Your task to perform on an android device: change alarm snooze length Image 0: 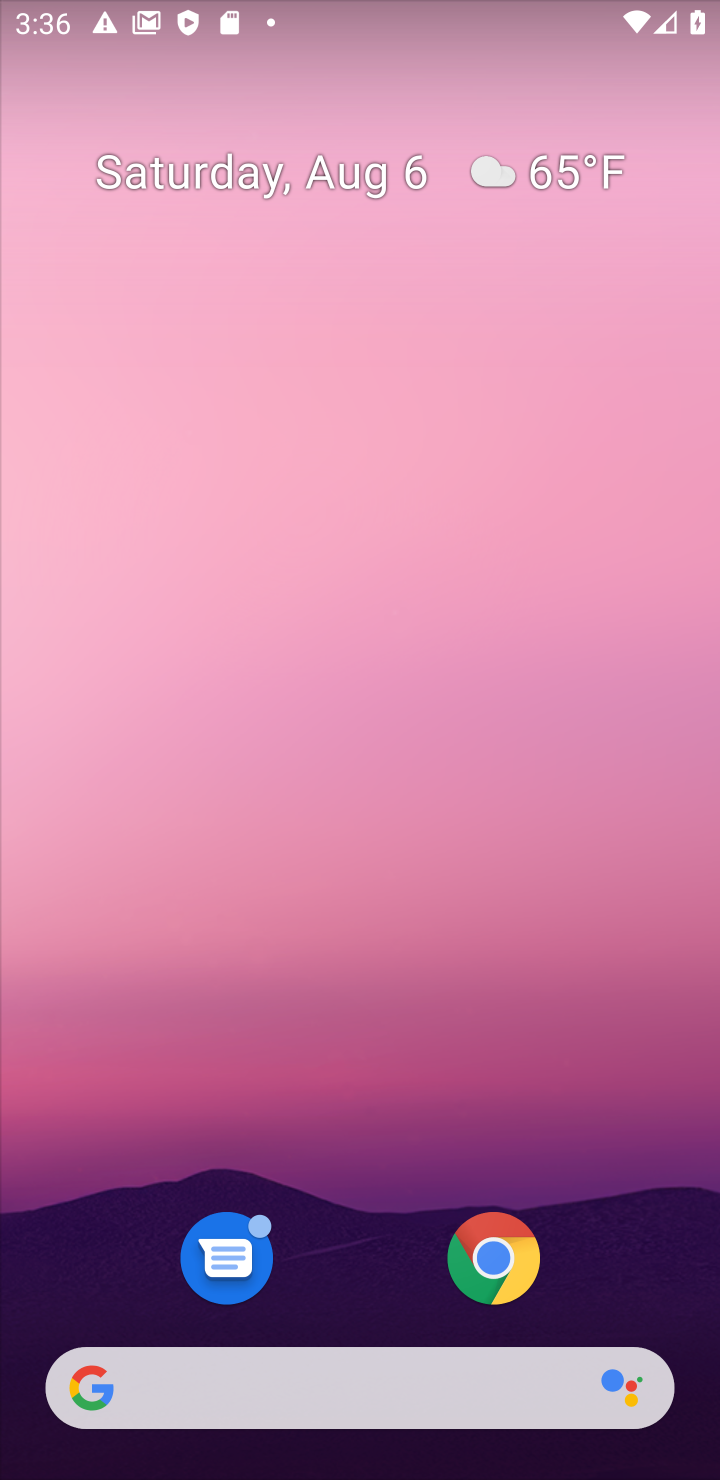
Step 0: drag from (320, 1038) to (366, 456)
Your task to perform on an android device: change alarm snooze length Image 1: 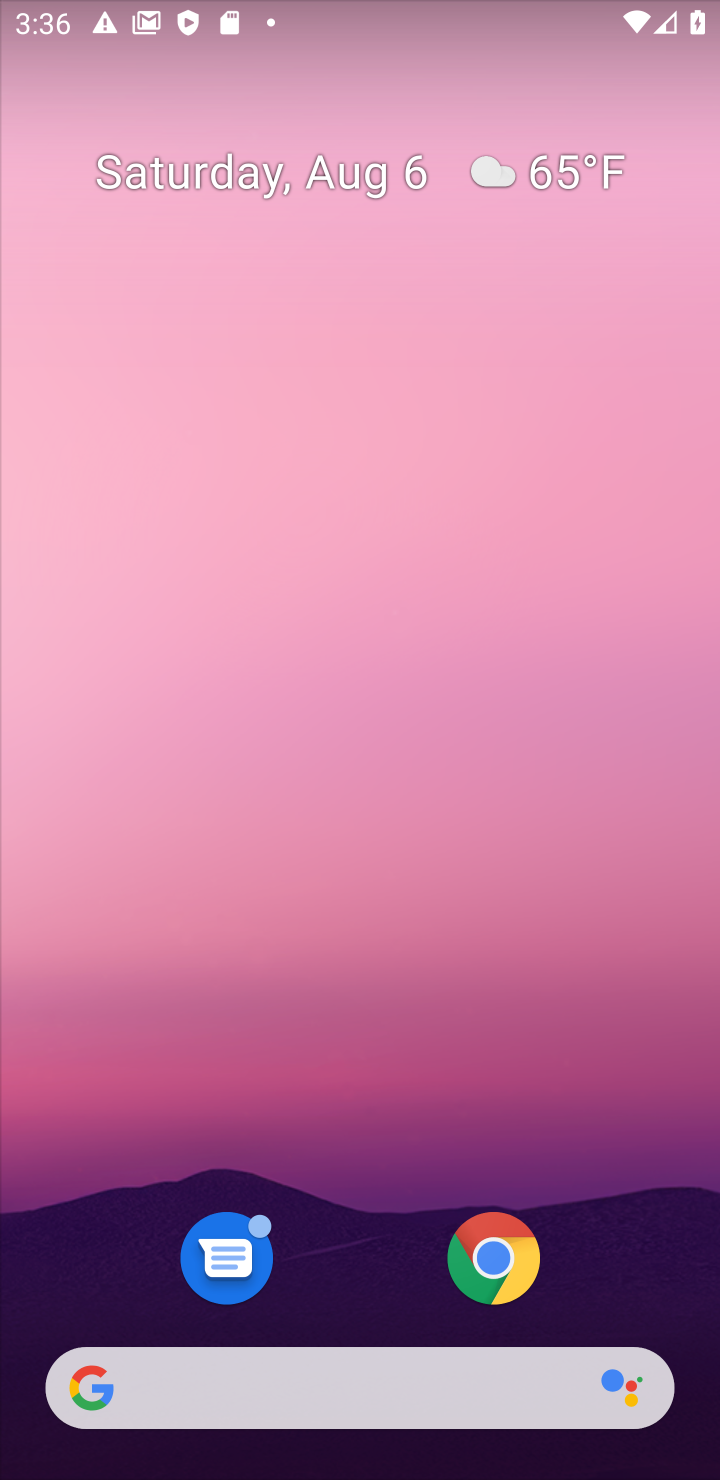
Step 1: drag from (396, 561) to (453, 195)
Your task to perform on an android device: change alarm snooze length Image 2: 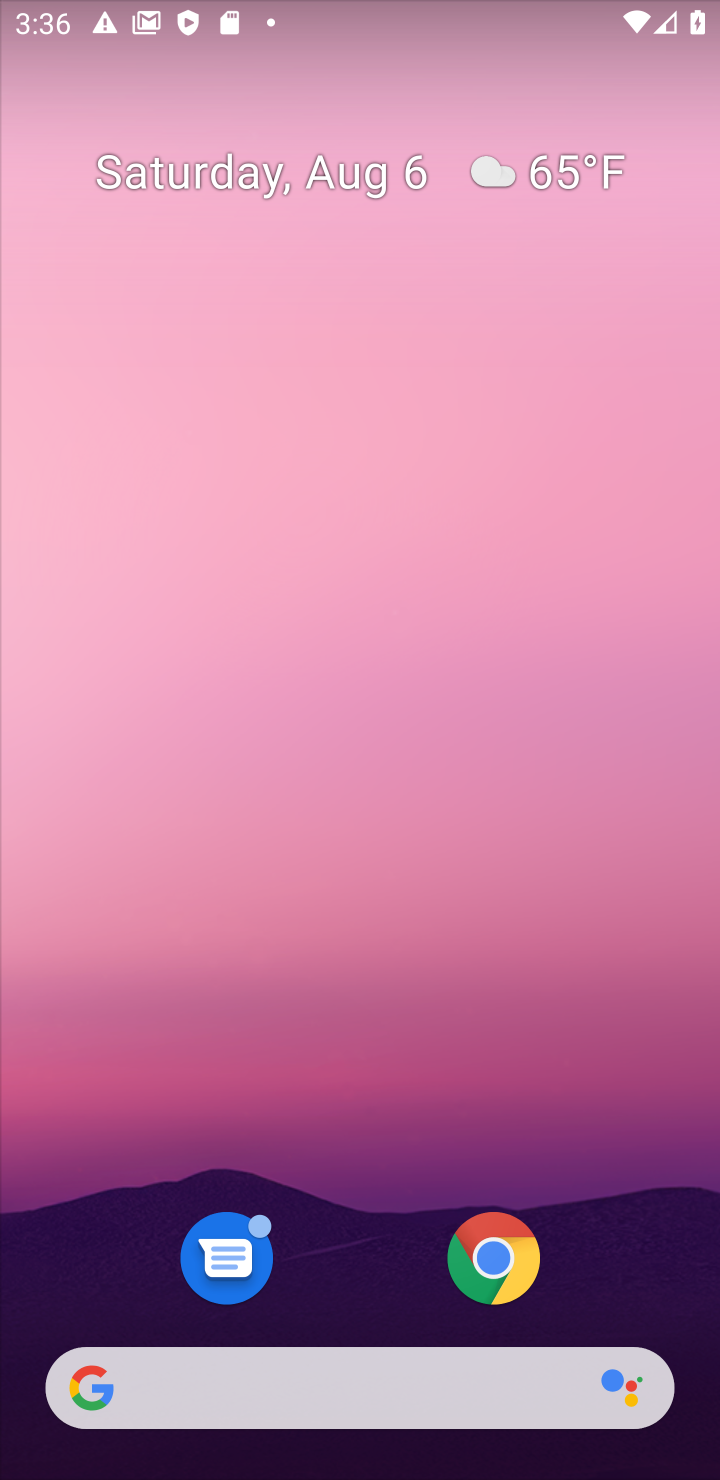
Step 2: drag from (367, 1229) to (351, 20)
Your task to perform on an android device: change alarm snooze length Image 3: 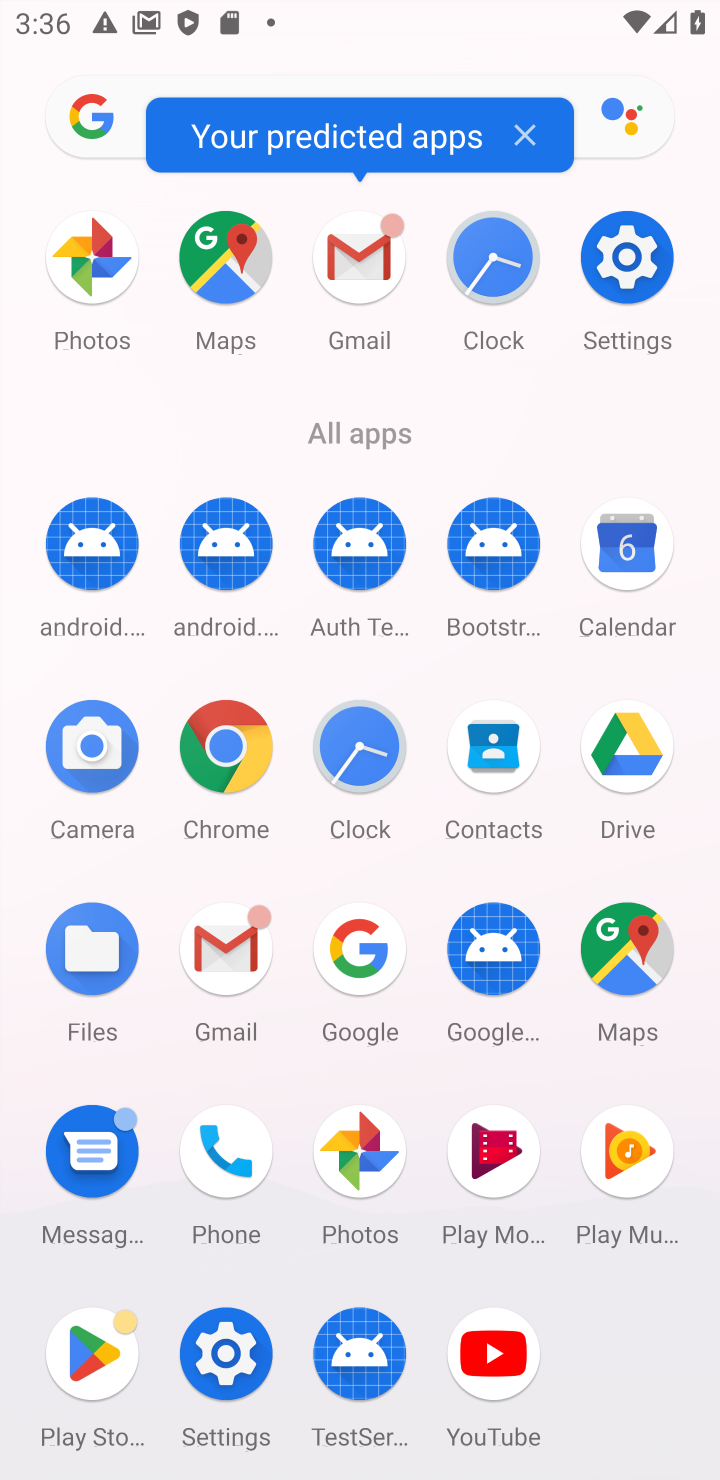
Step 3: click (360, 747)
Your task to perform on an android device: change alarm snooze length Image 4: 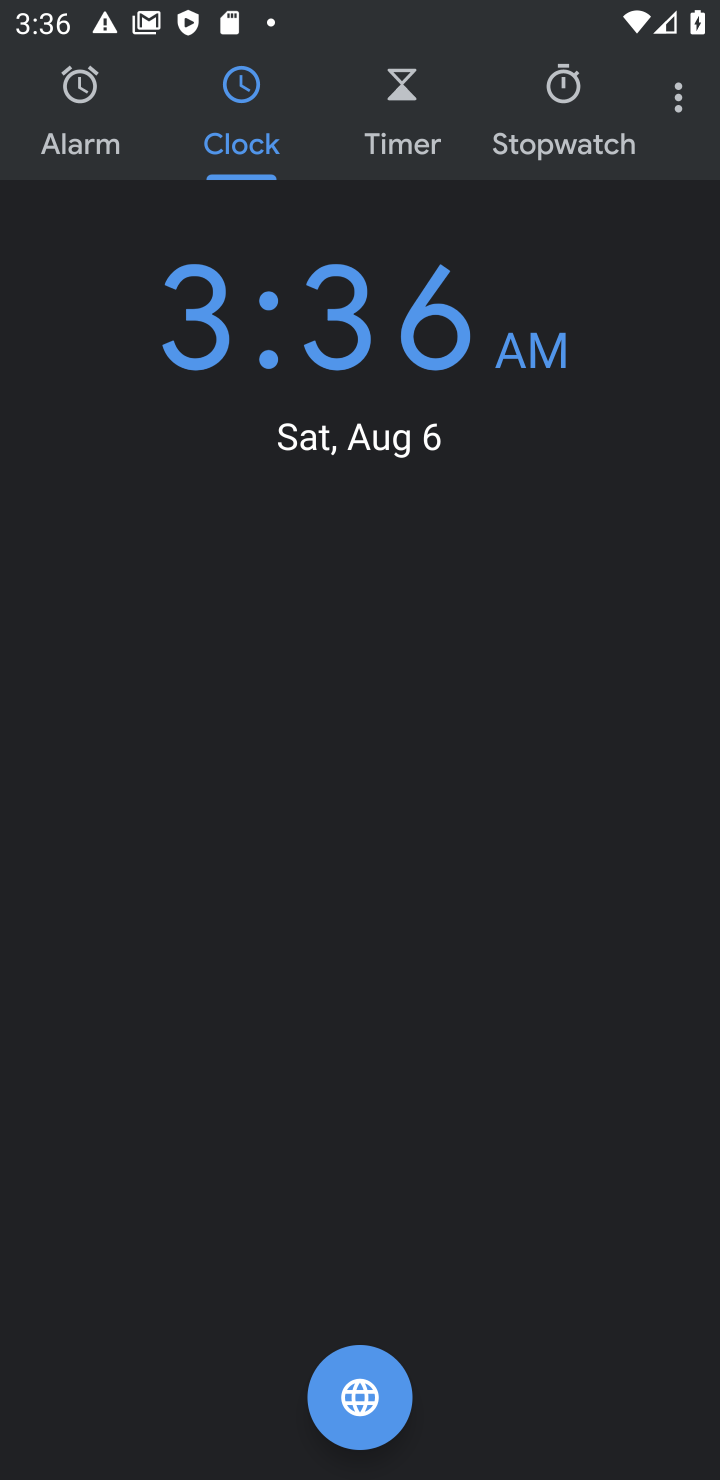
Step 4: click (680, 108)
Your task to perform on an android device: change alarm snooze length Image 5: 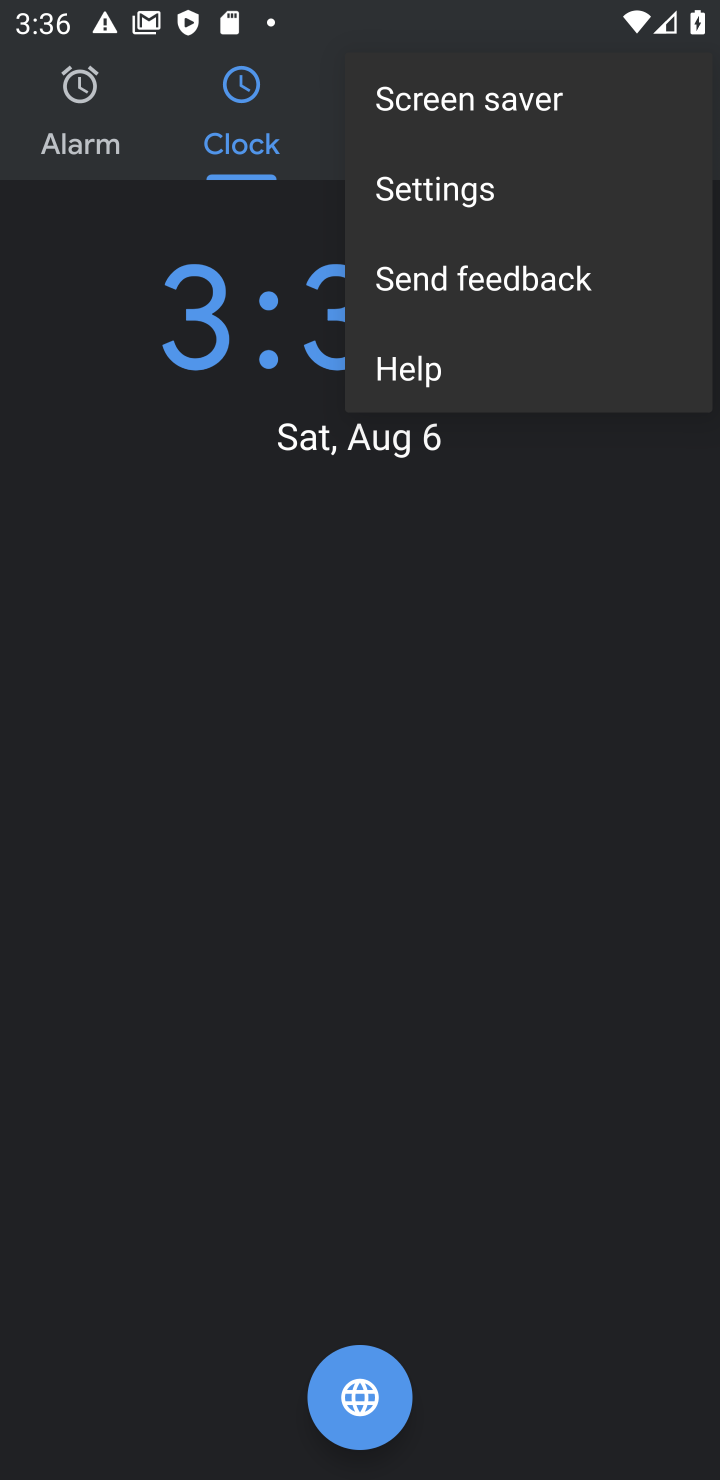
Step 5: click (439, 207)
Your task to perform on an android device: change alarm snooze length Image 6: 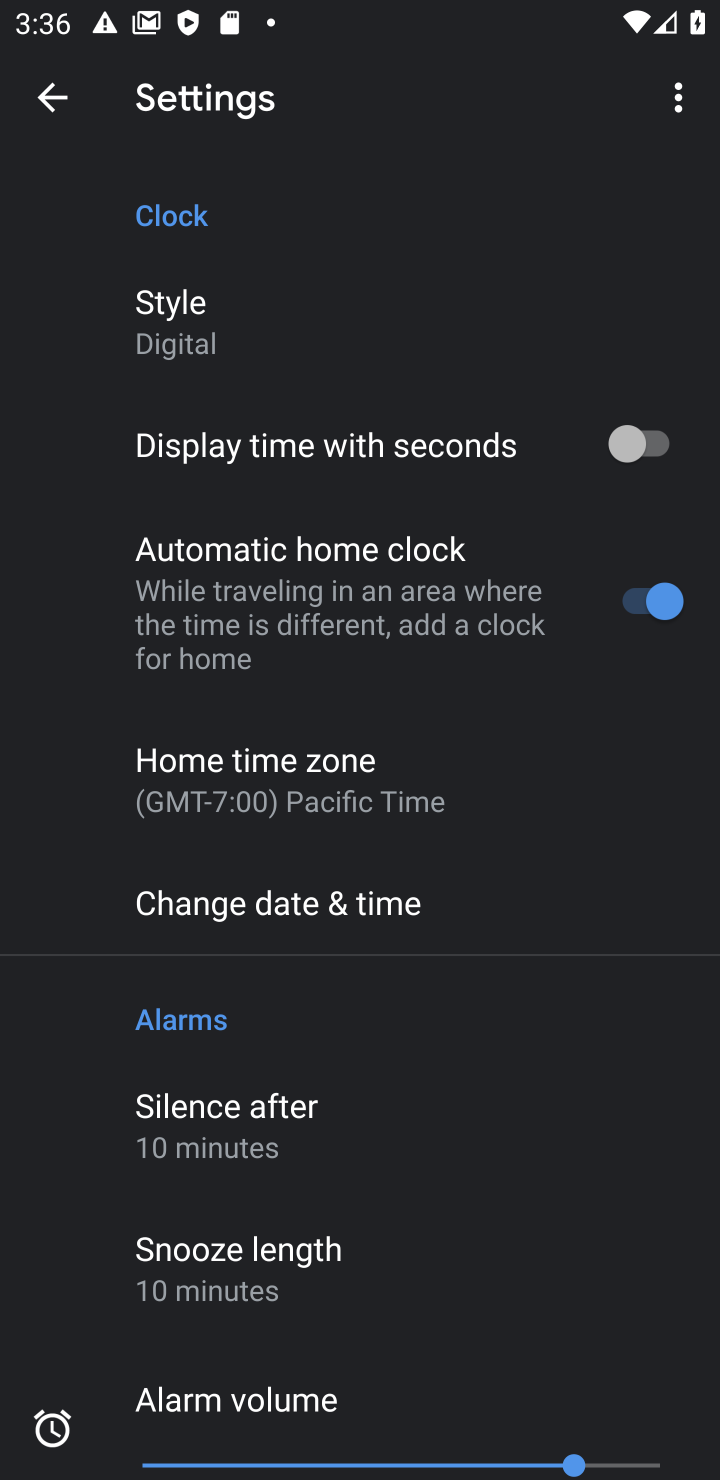
Step 6: click (243, 1276)
Your task to perform on an android device: change alarm snooze length Image 7: 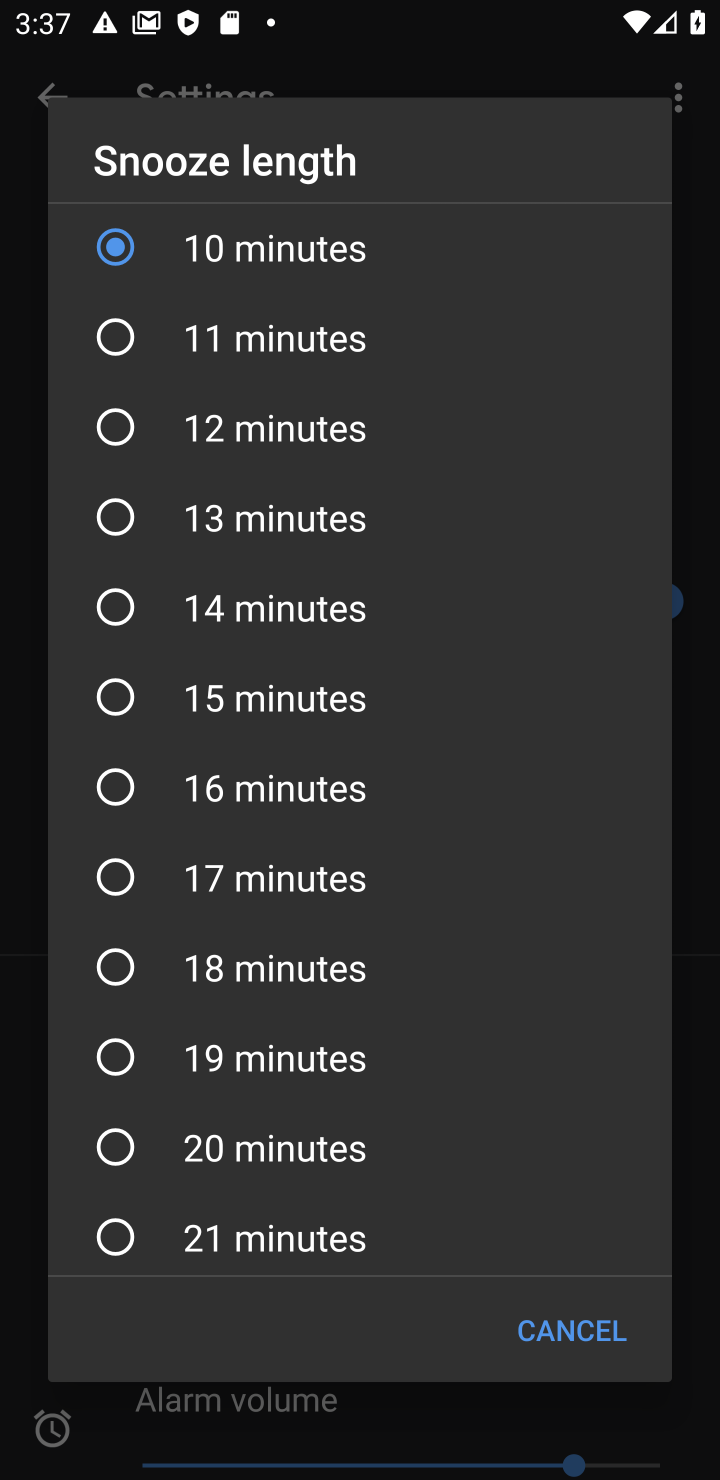
Step 7: click (153, 703)
Your task to perform on an android device: change alarm snooze length Image 8: 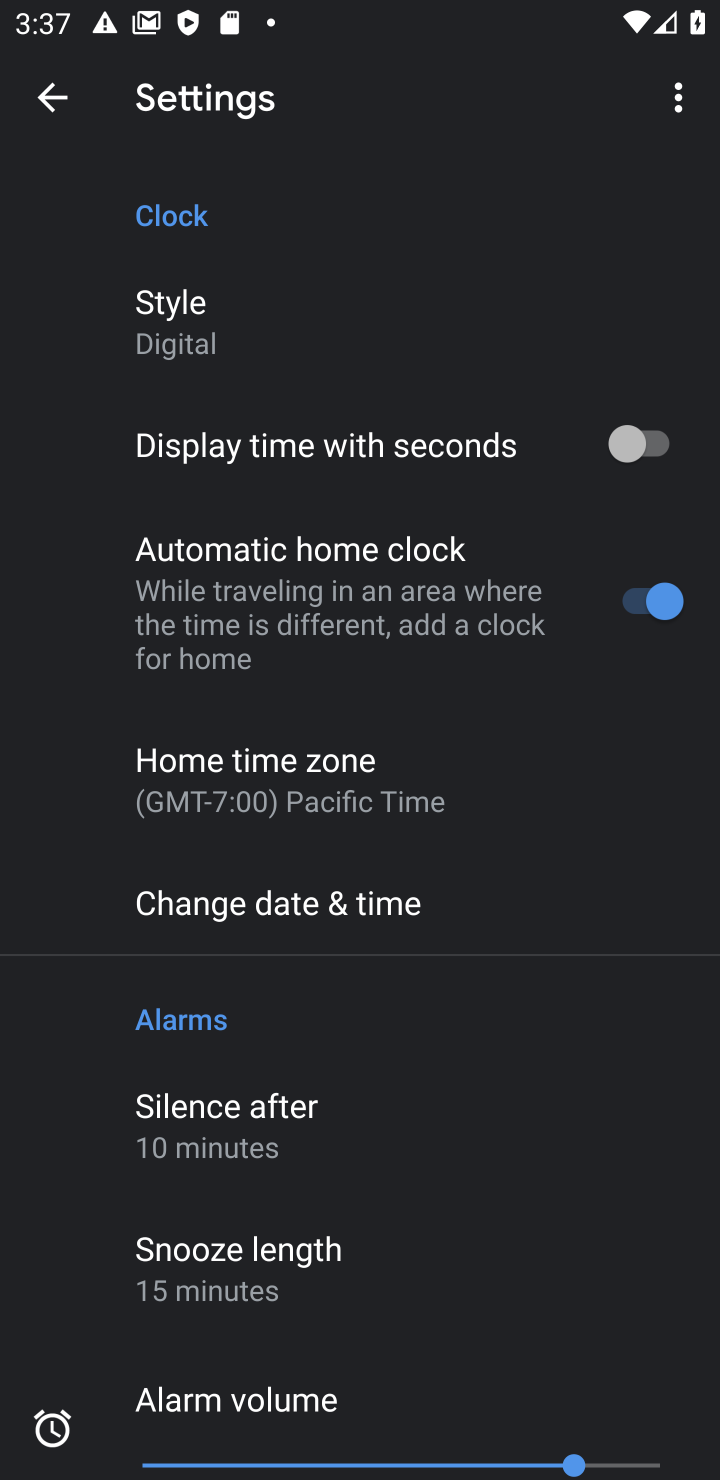
Step 8: task complete